Your task to perform on an android device: turn on the 24-hour format for clock Image 0: 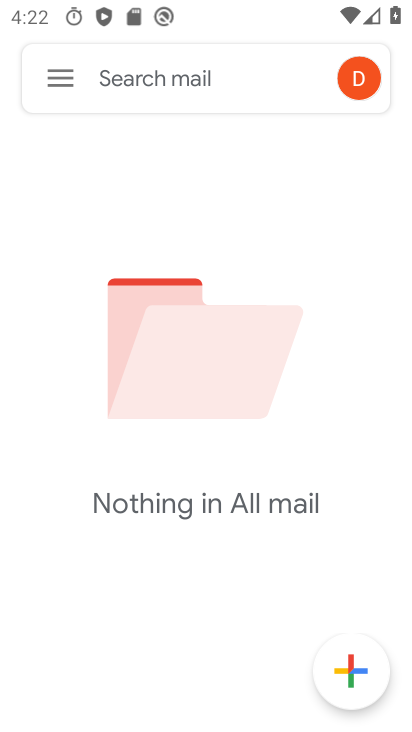
Step 0: press back button
Your task to perform on an android device: turn on the 24-hour format for clock Image 1: 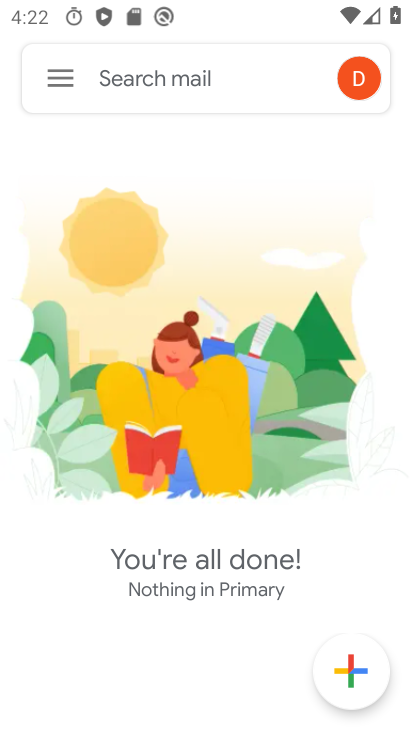
Step 1: press back button
Your task to perform on an android device: turn on the 24-hour format for clock Image 2: 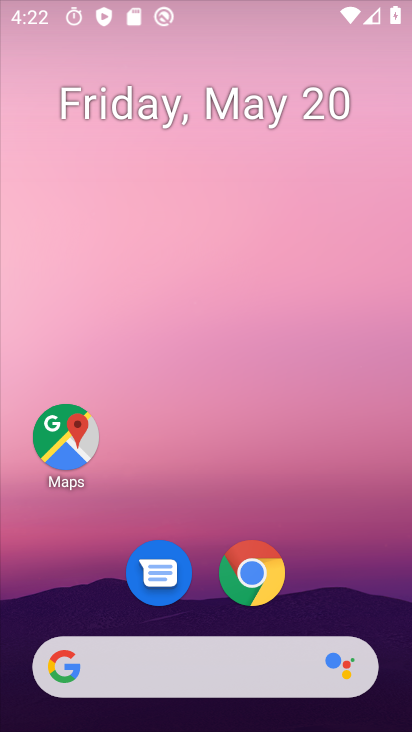
Step 2: press home button
Your task to perform on an android device: turn on the 24-hour format for clock Image 3: 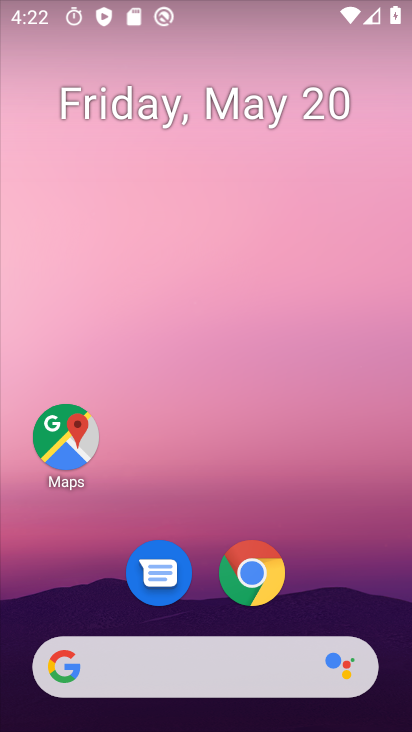
Step 3: drag from (308, 698) to (262, 33)
Your task to perform on an android device: turn on the 24-hour format for clock Image 4: 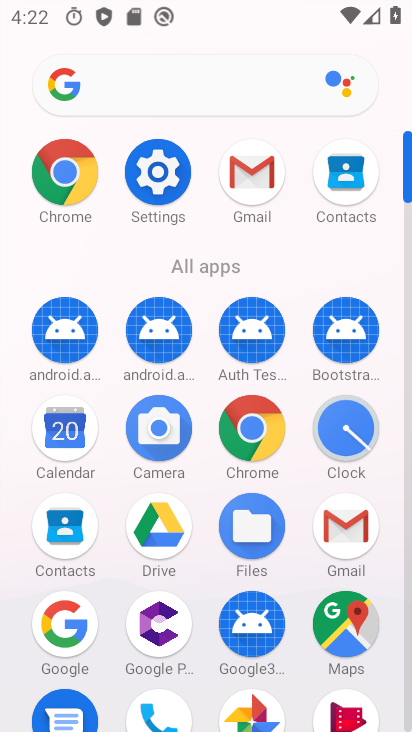
Step 4: click (346, 438)
Your task to perform on an android device: turn on the 24-hour format for clock Image 5: 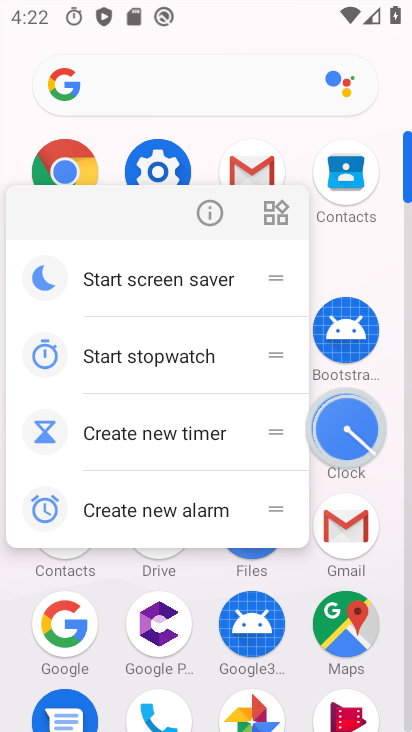
Step 5: click (347, 433)
Your task to perform on an android device: turn on the 24-hour format for clock Image 6: 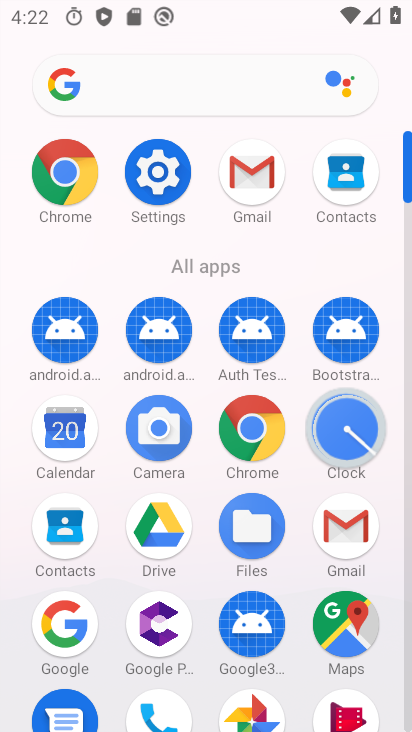
Step 6: click (347, 433)
Your task to perform on an android device: turn on the 24-hour format for clock Image 7: 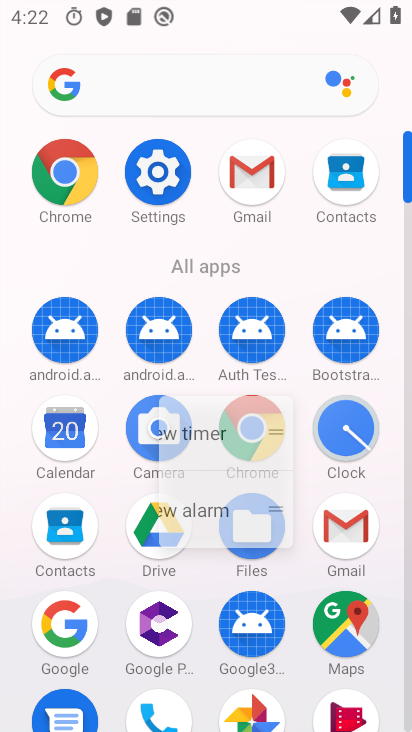
Step 7: click (347, 433)
Your task to perform on an android device: turn on the 24-hour format for clock Image 8: 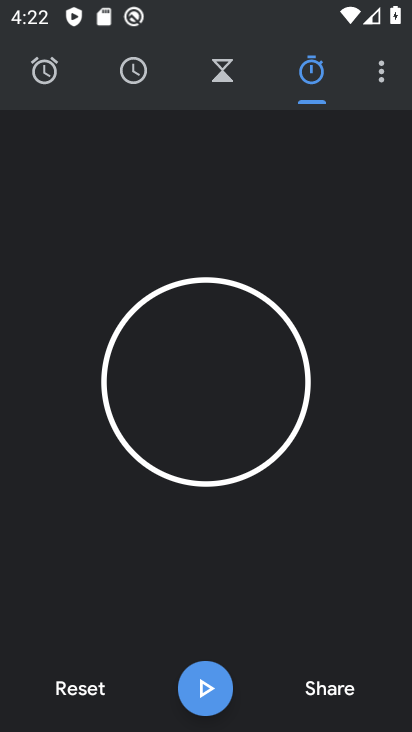
Step 8: click (354, 425)
Your task to perform on an android device: turn on the 24-hour format for clock Image 9: 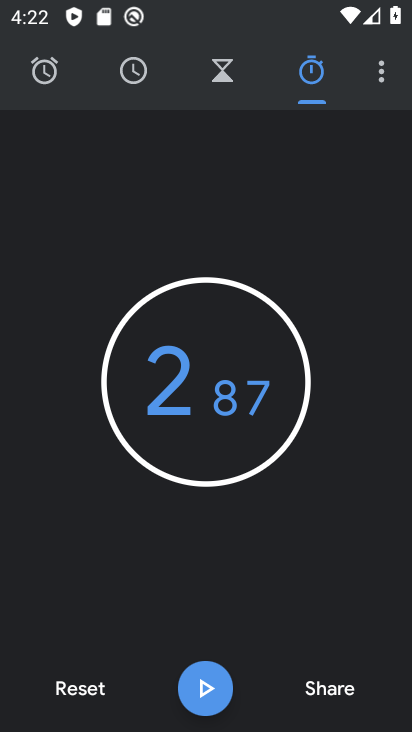
Step 9: click (377, 78)
Your task to perform on an android device: turn on the 24-hour format for clock Image 10: 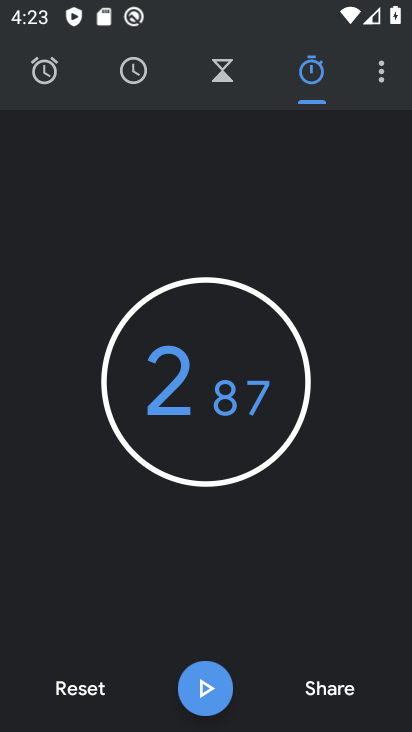
Step 10: click (337, 143)
Your task to perform on an android device: turn on the 24-hour format for clock Image 11: 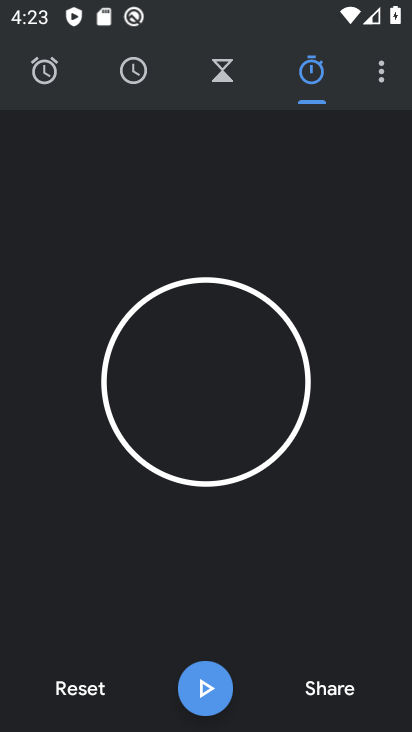
Step 11: click (340, 140)
Your task to perform on an android device: turn on the 24-hour format for clock Image 12: 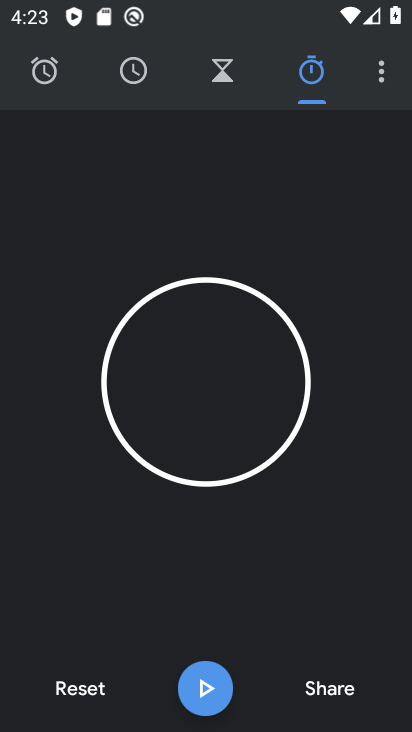
Step 12: click (382, 73)
Your task to perform on an android device: turn on the 24-hour format for clock Image 13: 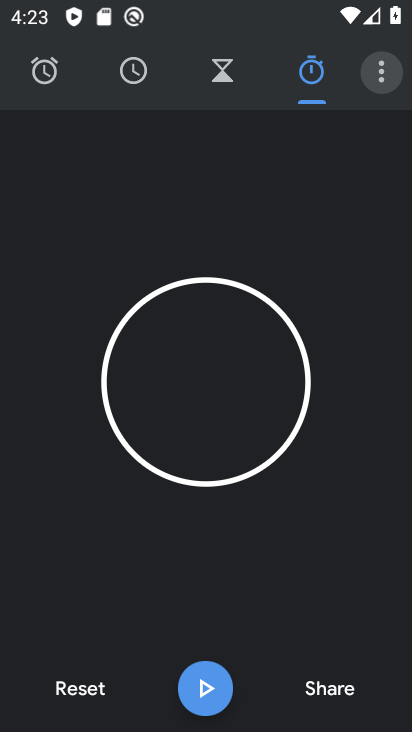
Step 13: click (381, 74)
Your task to perform on an android device: turn on the 24-hour format for clock Image 14: 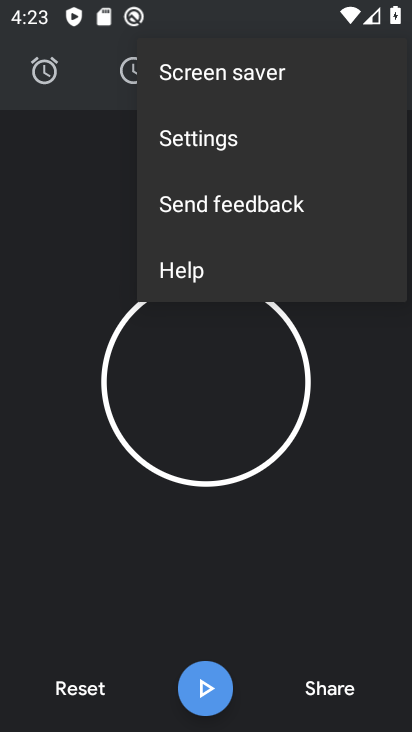
Step 14: click (381, 74)
Your task to perform on an android device: turn on the 24-hour format for clock Image 15: 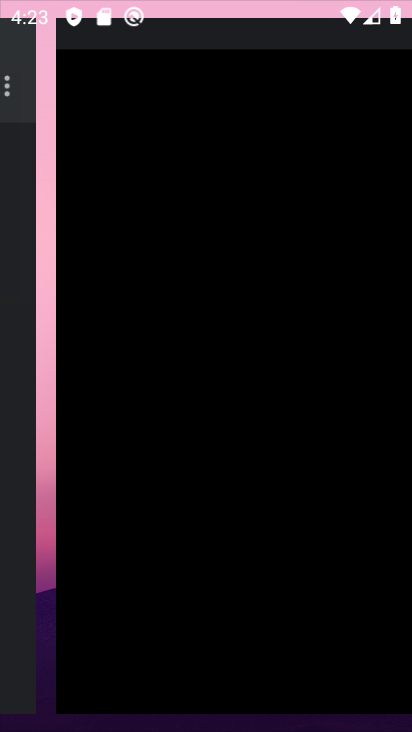
Step 15: click (215, 139)
Your task to perform on an android device: turn on the 24-hour format for clock Image 16: 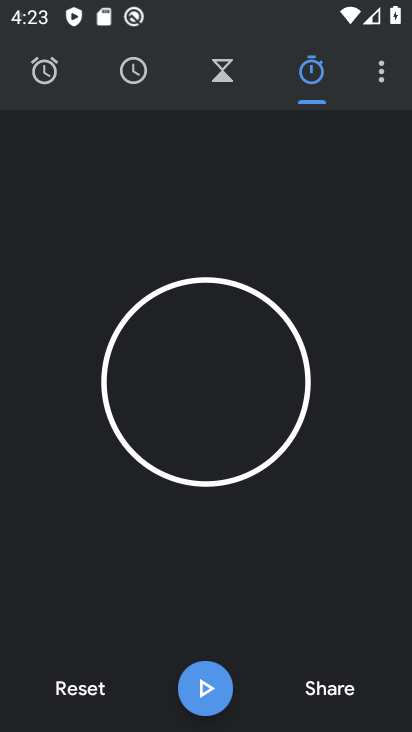
Step 16: click (374, 72)
Your task to perform on an android device: turn on the 24-hour format for clock Image 17: 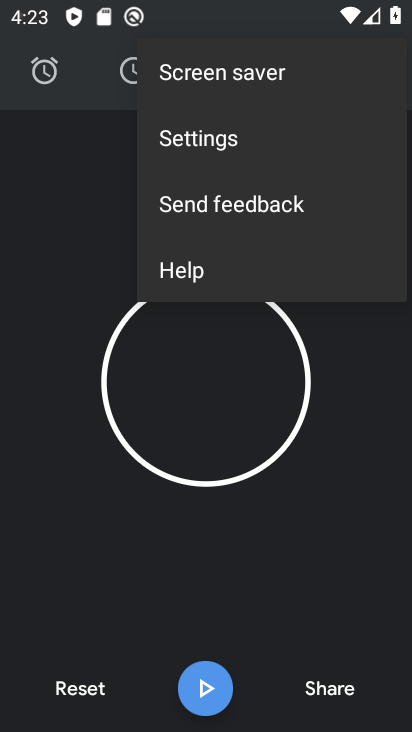
Step 17: click (189, 146)
Your task to perform on an android device: turn on the 24-hour format for clock Image 18: 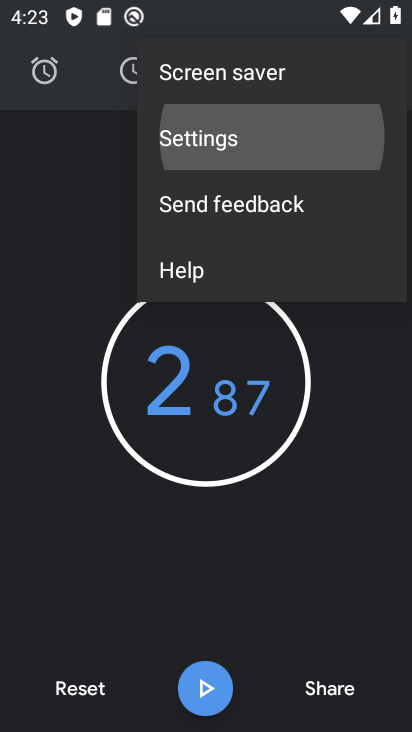
Step 18: click (189, 146)
Your task to perform on an android device: turn on the 24-hour format for clock Image 19: 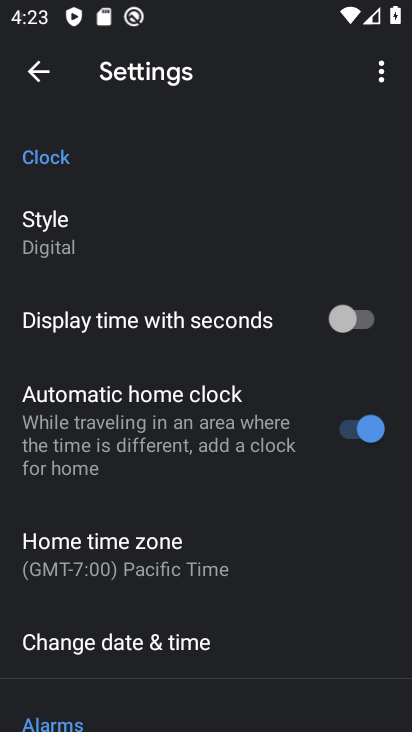
Step 19: drag from (221, 217) to (236, 87)
Your task to perform on an android device: turn on the 24-hour format for clock Image 20: 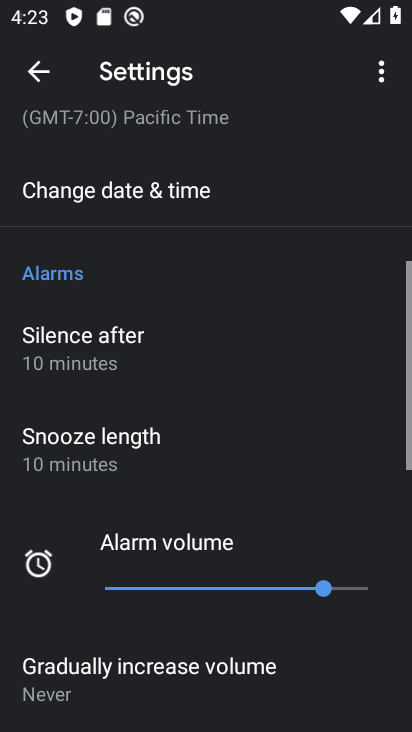
Step 20: drag from (212, 537) to (212, 244)
Your task to perform on an android device: turn on the 24-hour format for clock Image 21: 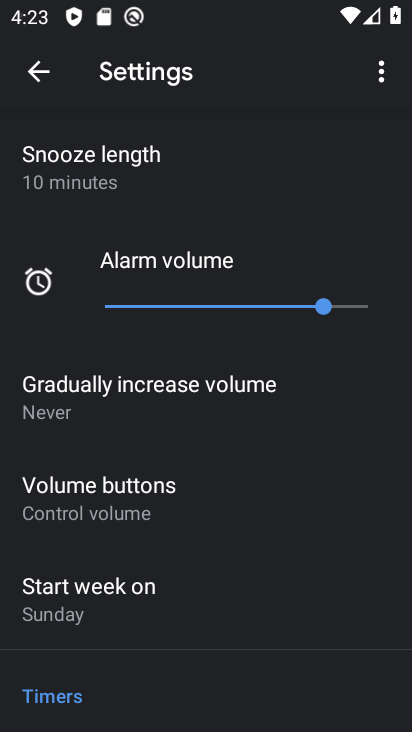
Step 21: drag from (163, 557) to (236, 217)
Your task to perform on an android device: turn on the 24-hour format for clock Image 22: 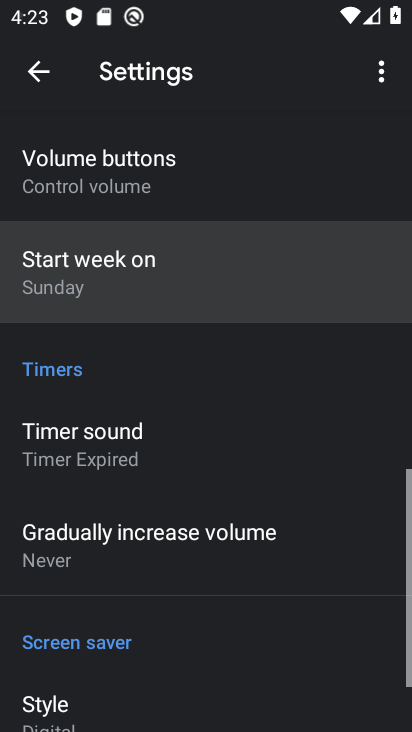
Step 22: drag from (198, 453) to (189, 123)
Your task to perform on an android device: turn on the 24-hour format for clock Image 23: 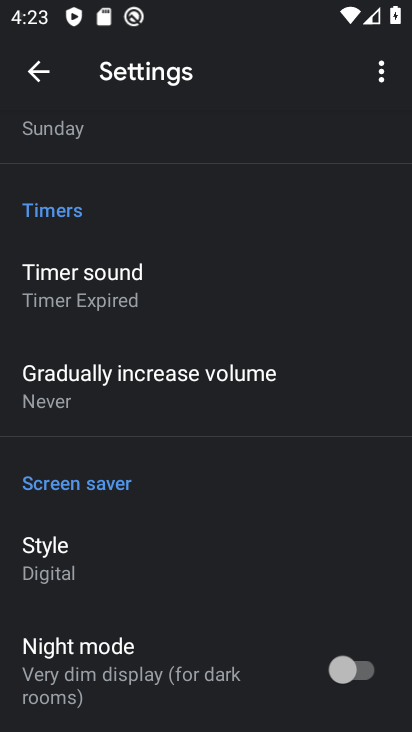
Step 23: drag from (120, 247) to (136, 476)
Your task to perform on an android device: turn on the 24-hour format for clock Image 24: 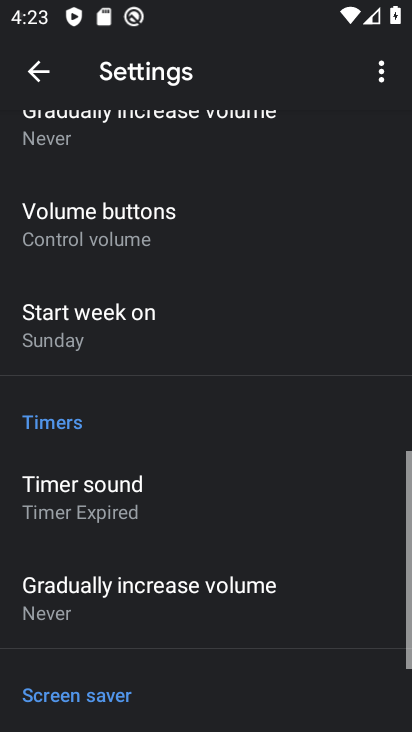
Step 24: drag from (146, 211) to (180, 412)
Your task to perform on an android device: turn on the 24-hour format for clock Image 25: 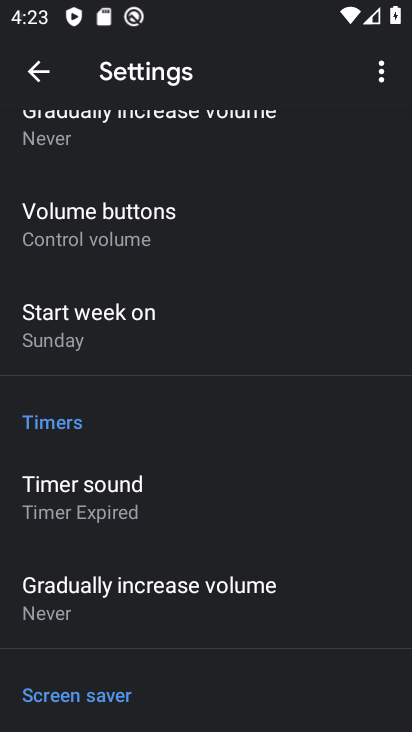
Step 25: drag from (201, 222) to (234, 462)
Your task to perform on an android device: turn on the 24-hour format for clock Image 26: 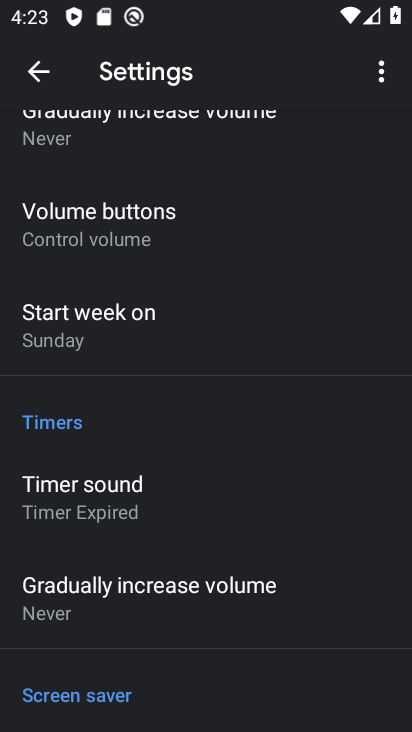
Step 26: drag from (200, 219) to (266, 477)
Your task to perform on an android device: turn on the 24-hour format for clock Image 27: 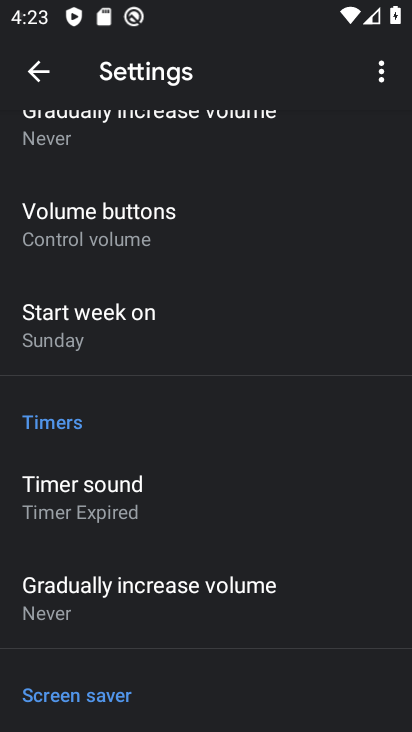
Step 27: drag from (139, 197) to (147, 565)
Your task to perform on an android device: turn on the 24-hour format for clock Image 28: 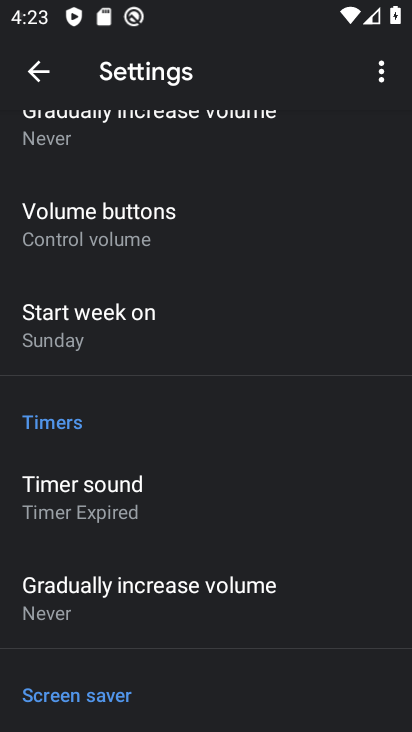
Step 28: drag from (172, 221) to (227, 530)
Your task to perform on an android device: turn on the 24-hour format for clock Image 29: 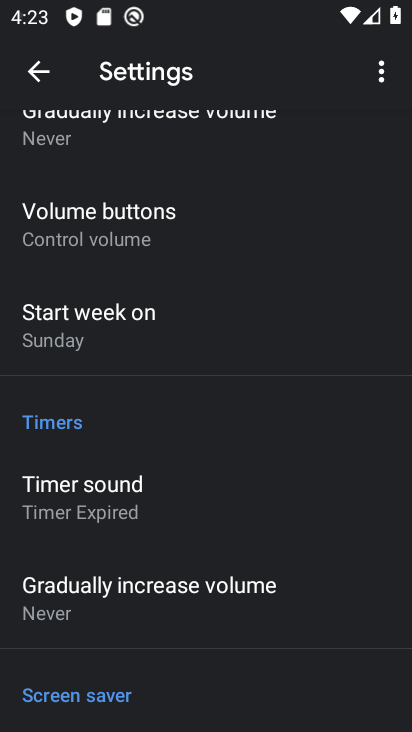
Step 29: drag from (290, 243) to (314, 550)
Your task to perform on an android device: turn on the 24-hour format for clock Image 30: 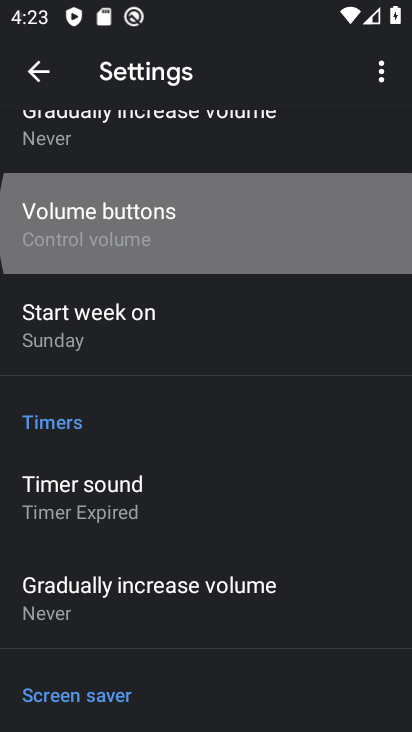
Step 30: drag from (271, 220) to (279, 605)
Your task to perform on an android device: turn on the 24-hour format for clock Image 31: 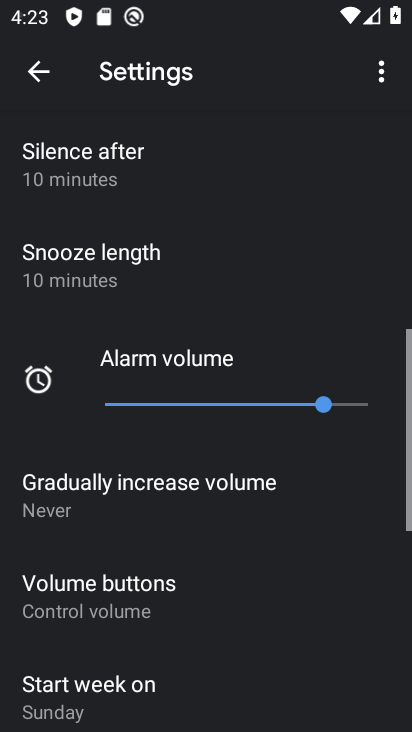
Step 31: drag from (121, 120) to (124, 625)
Your task to perform on an android device: turn on the 24-hour format for clock Image 32: 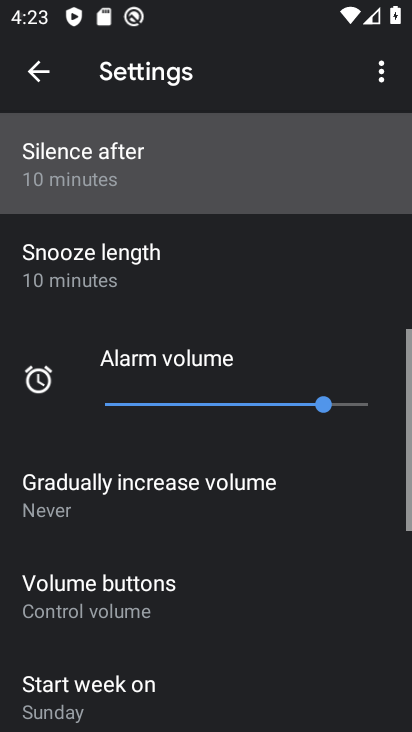
Step 32: drag from (109, 189) to (168, 528)
Your task to perform on an android device: turn on the 24-hour format for clock Image 33: 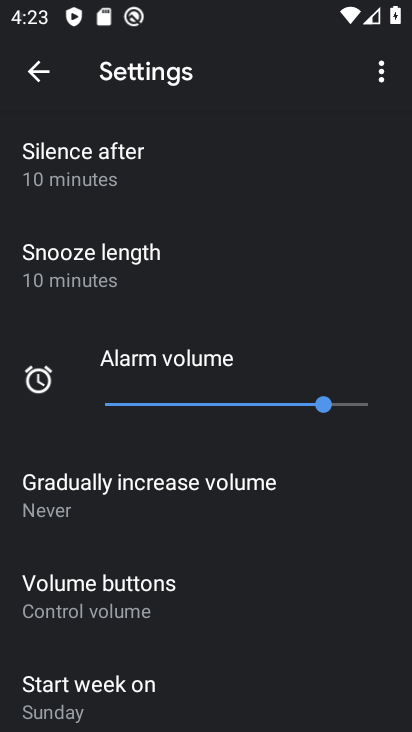
Step 33: drag from (186, 249) to (214, 527)
Your task to perform on an android device: turn on the 24-hour format for clock Image 34: 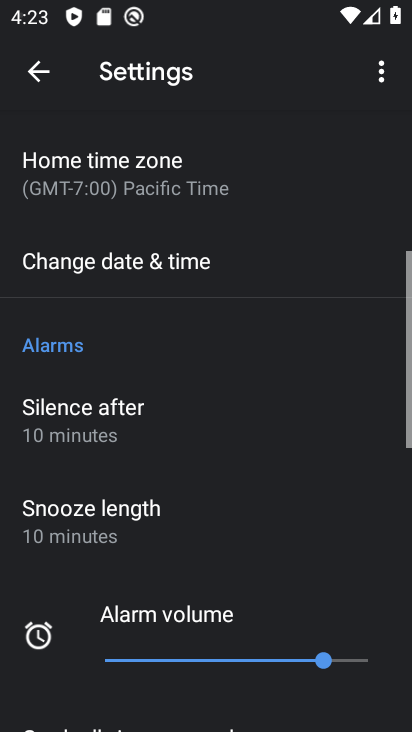
Step 34: drag from (170, 254) to (195, 585)
Your task to perform on an android device: turn on the 24-hour format for clock Image 35: 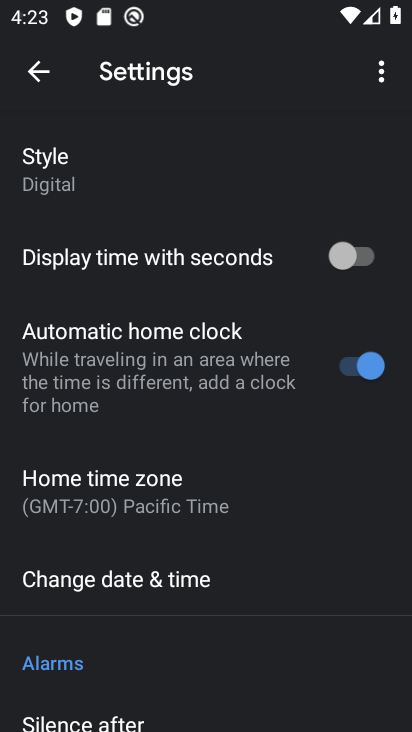
Step 35: click (96, 557)
Your task to perform on an android device: turn on the 24-hour format for clock Image 36: 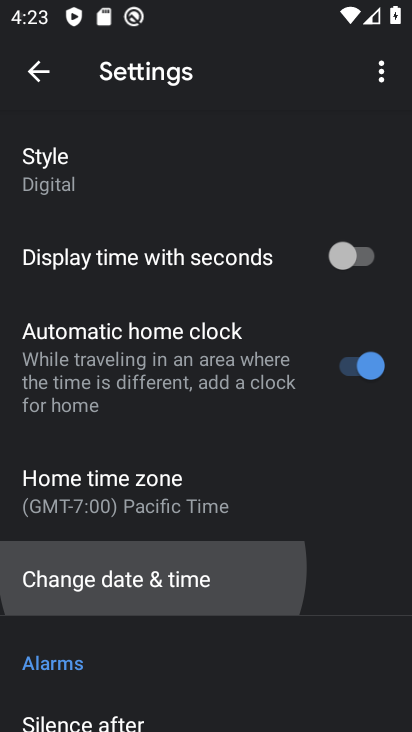
Step 36: click (104, 580)
Your task to perform on an android device: turn on the 24-hour format for clock Image 37: 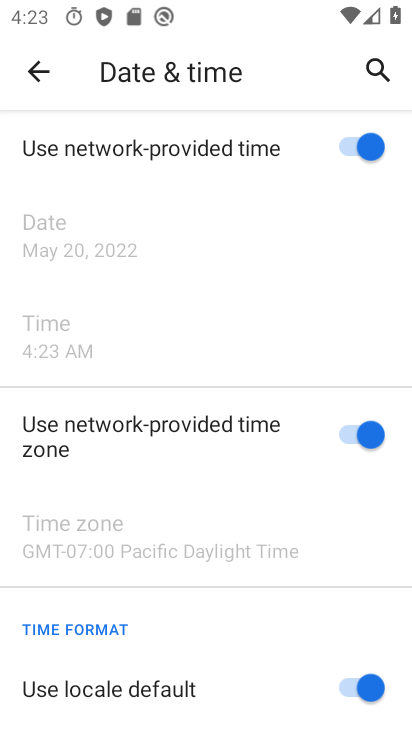
Step 37: drag from (261, 461) to (261, 106)
Your task to perform on an android device: turn on the 24-hour format for clock Image 38: 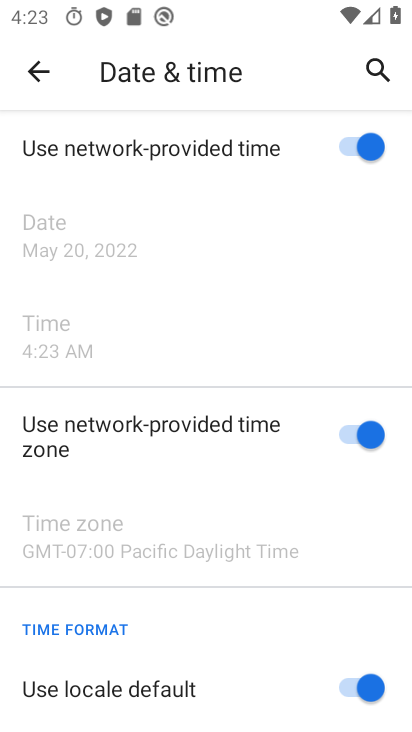
Step 38: click (282, 122)
Your task to perform on an android device: turn on the 24-hour format for clock Image 39: 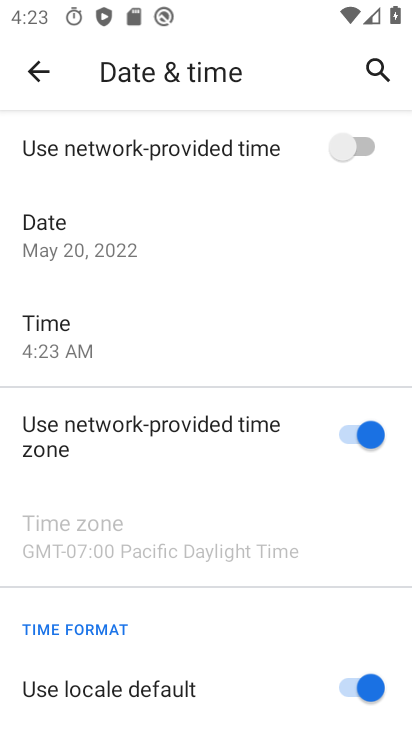
Step 39: click (350, 140)
Your task to perform on an android device: turn on the 24-hour format for clock Image 40: 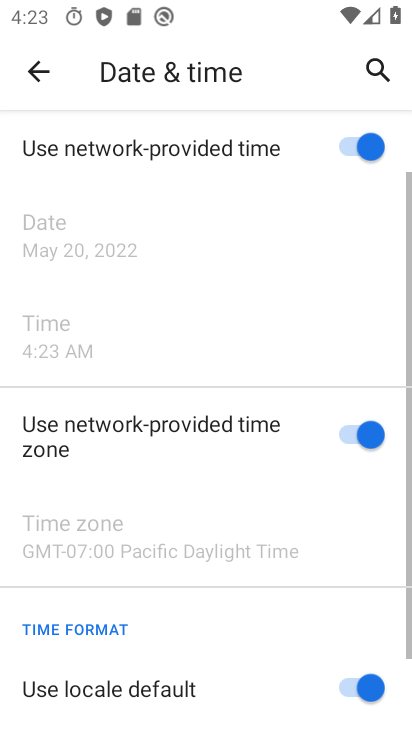
Step 40: drag from (210, 481) to (218, 68)
Your task to perform on an android device: turn on the 24-hour format for clock Image 41: 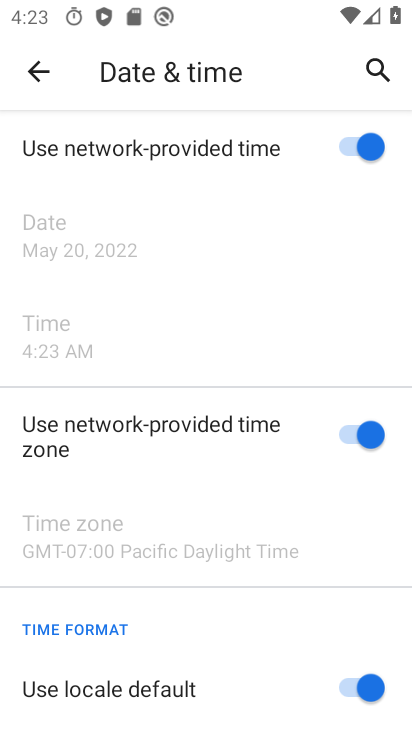
Step 41: drag from (208, 429) to (160, 64)
Your task to perform on an android device: turn on the 24-hour format for clock Image 42: 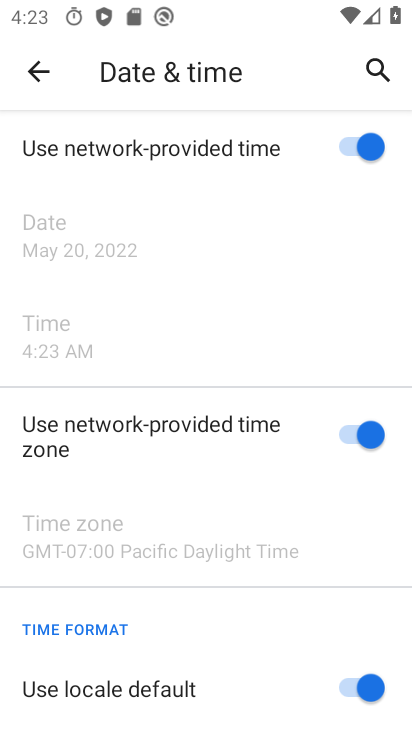
Step 42: drag from (291, 646) to (165, 123)
Your task to perform on an android device: turn on the 24-hour format for clock Image 43: 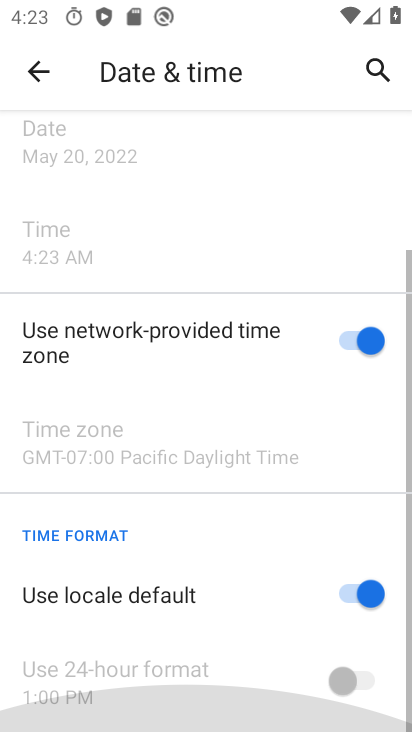
Step 43: drag from (215, 539) to (168, 44)
Your task to perform on an android device: turn on the 24-hour format for clock Image 44: 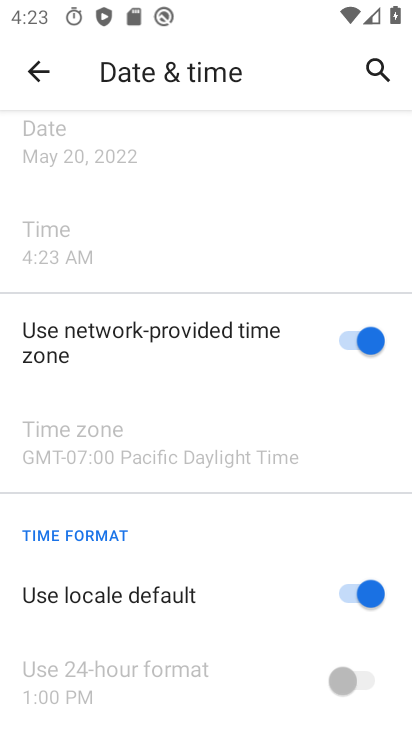
Step 44: click (374, 591)
Your task to perform on an android device: turn on the 24-hour format for clock Image 45: 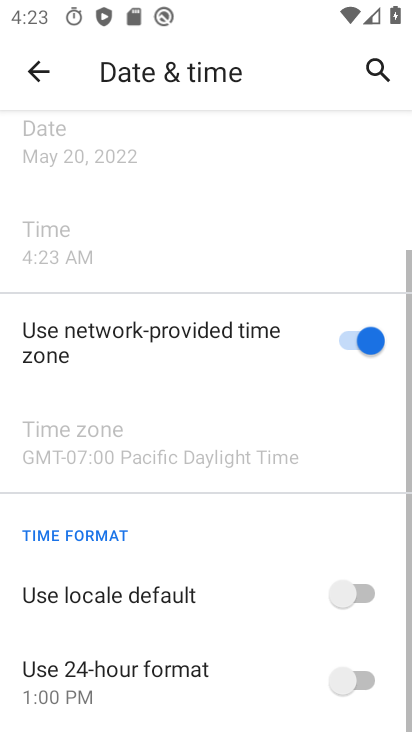
Step 45: click (348, 687)
Your task to perform on an android device: turn on the 24-hour format for clock Image 46: 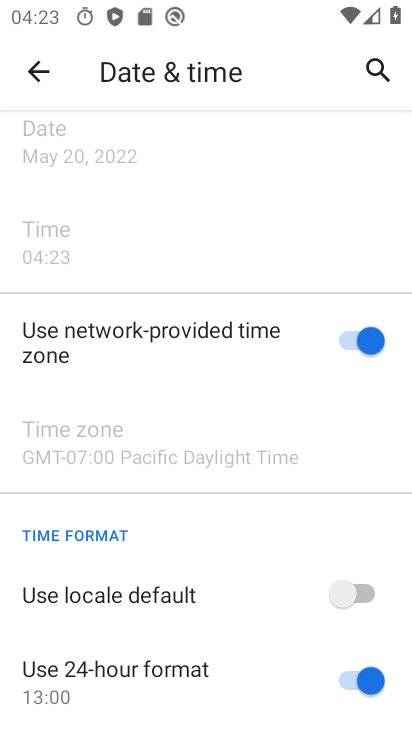
Step 46: task complete